Your task to perform on an android device: Go to Google maps Image 0: 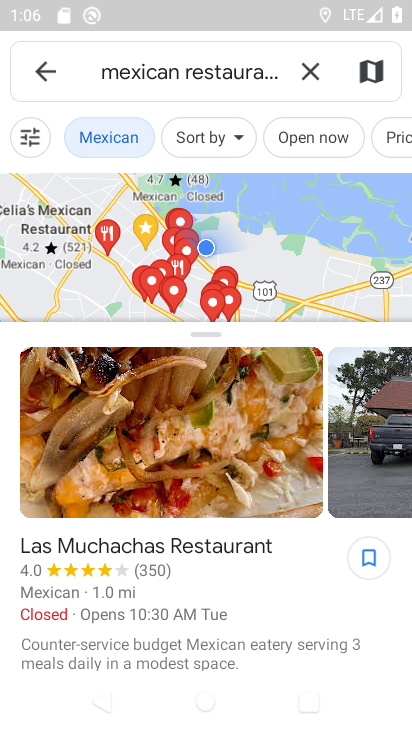
Step 0: click (306, 61)
Your task to perform on an android device: Go to Google maps Image 1: 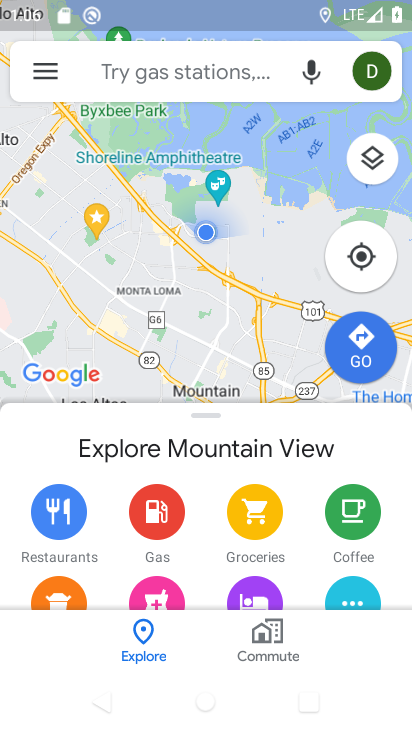
Step 1: task complete